Your task to perform on an android device: Go to sound settings Image 0: 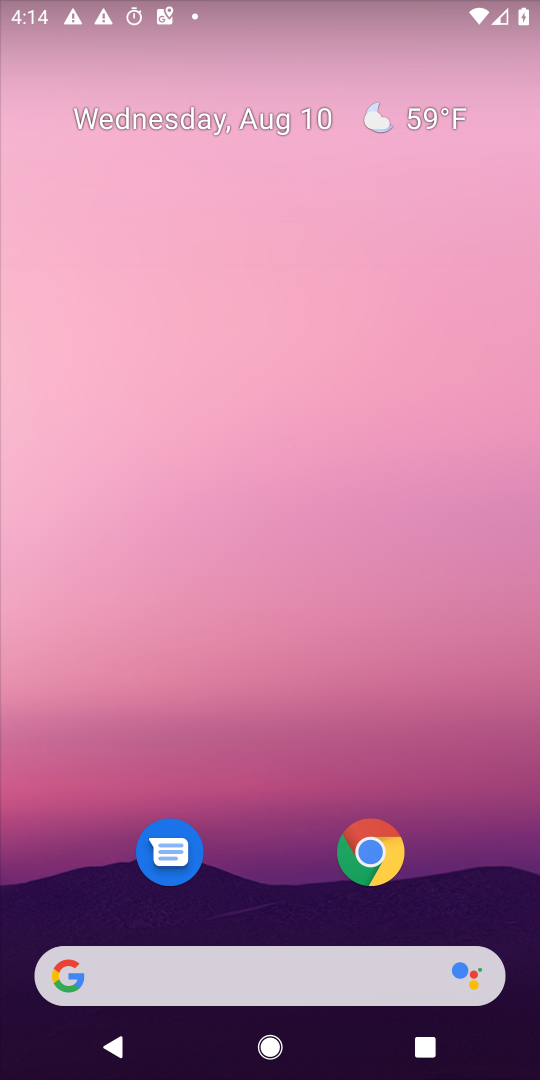
Step 0: drag from (280, 717) to (19, 59)
Your task to perform on an android device: Go to sound settings Image 1: 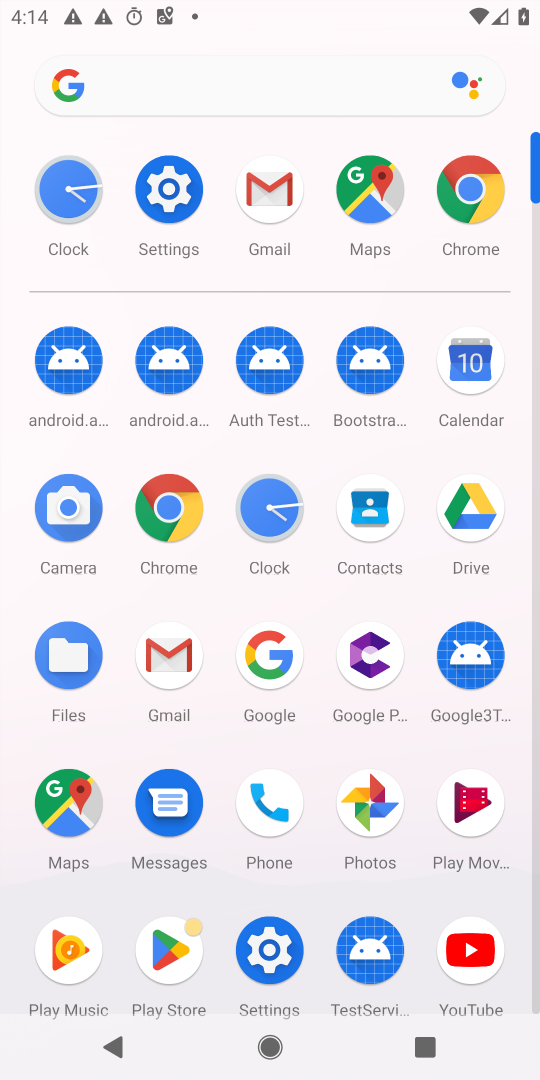
Step 1: click (172, 182)
Your task to perform on an android device: Go to sound settings Image 2: 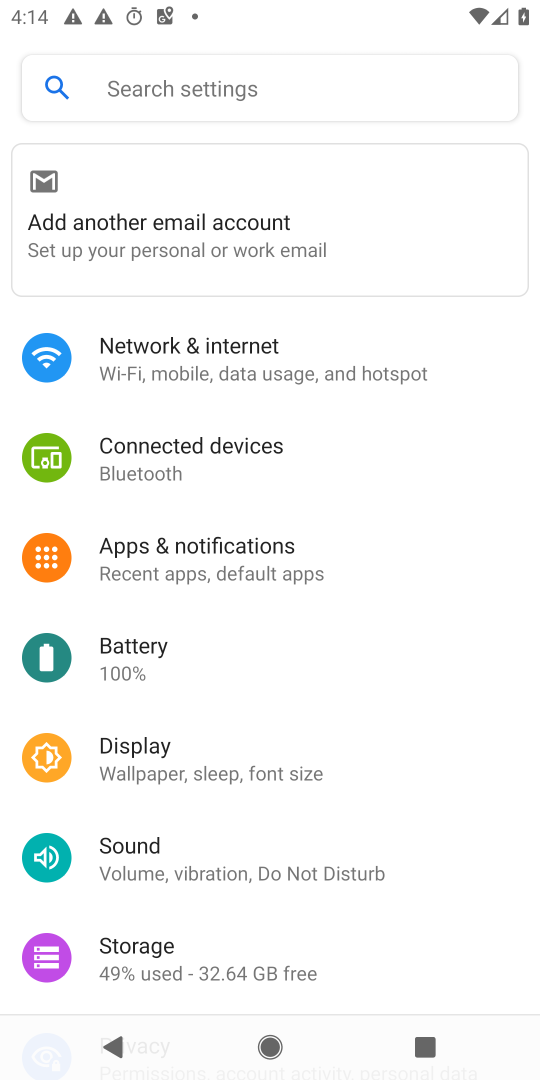
Step 2: click (304, 869)
Your task to perform on an android device: Go to sound settings Image 3: 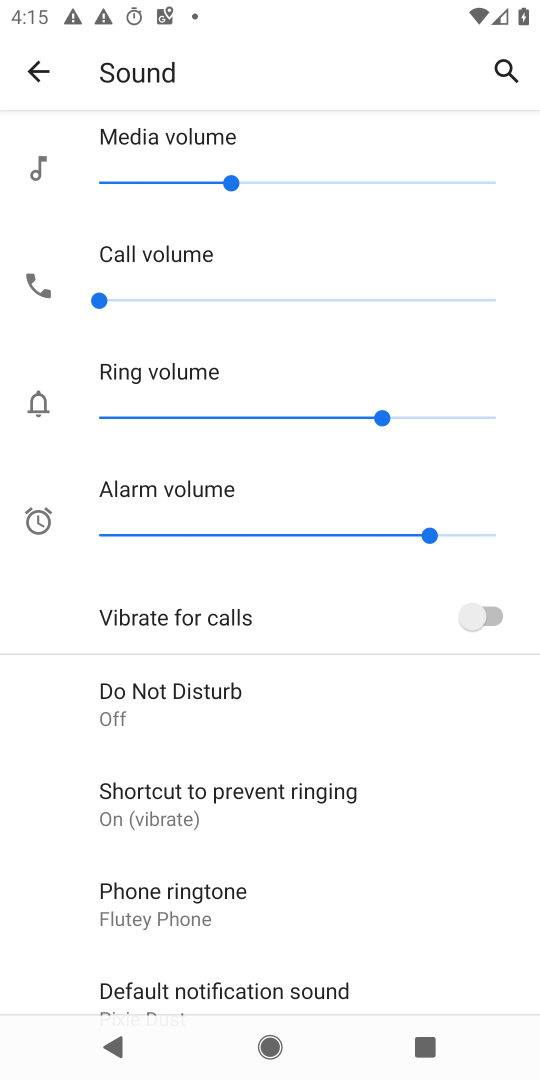
Step 3: task complete